Your task to perform on an android device: Open accessibility settings Image 0: 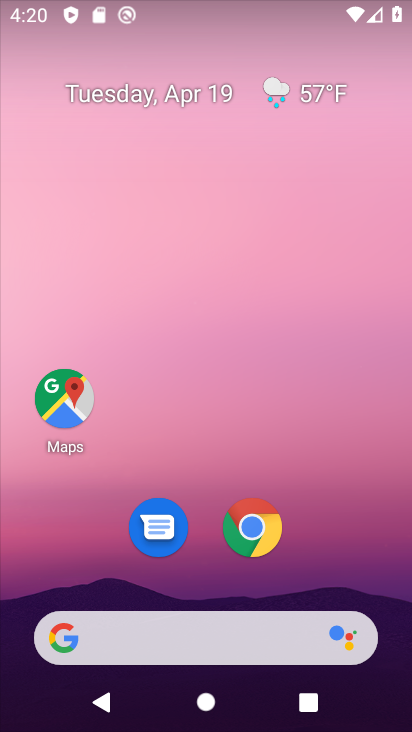
Step 0: drag from (394, 625) to (352, 246)
Your task to perform on an android device: Open accessibility settings Image 1: 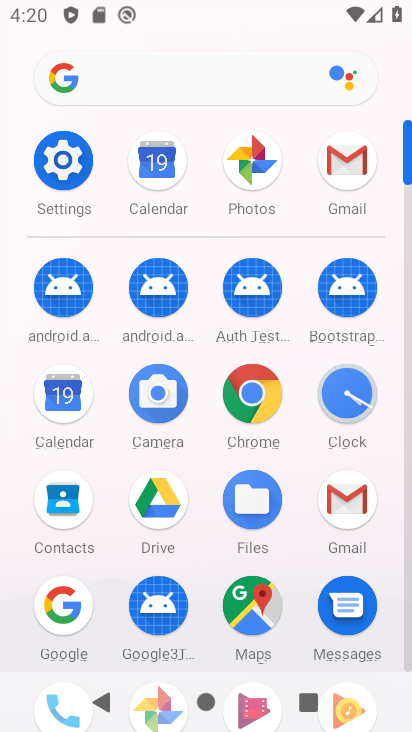
Step 1: click (405, 649)
Your task to perform on an android device: Open accessibility settings Image 2: 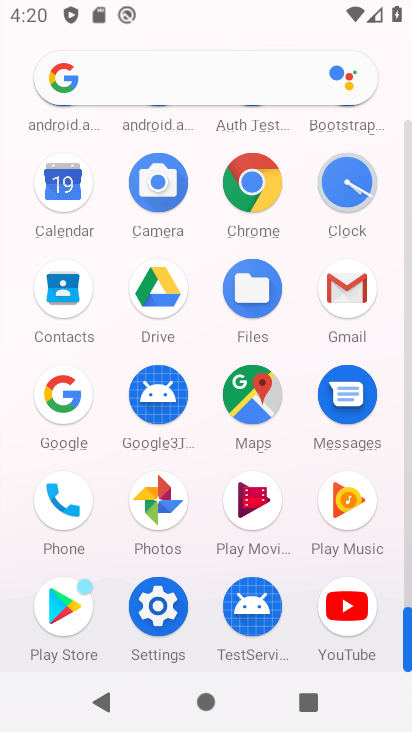
Step 2: click (158, 604)
Your task to perform on an android device: Open accessibility settings Image 3: 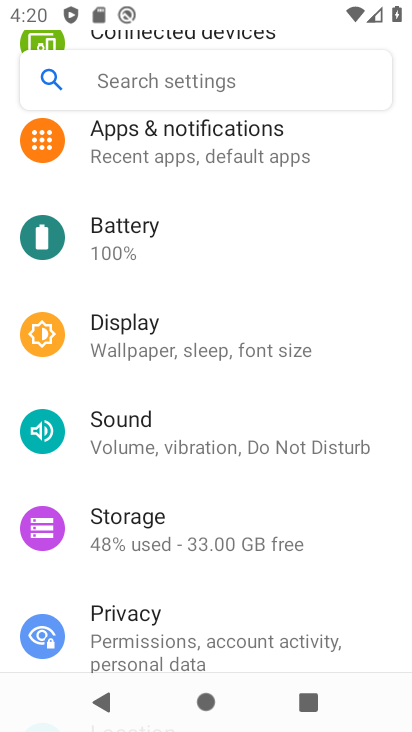
Step 3: drag from (345, 595) to (383, 331)
Your task to perform on an android device: Open accessibility settings Image 4: 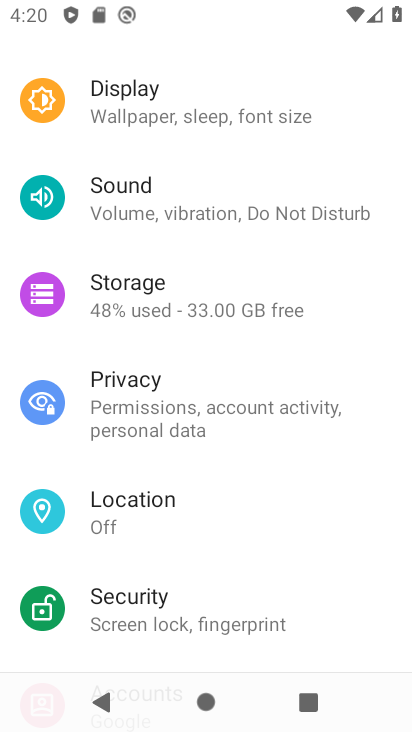
Step 4: drag from (306, 580) to (366, 297)
Your task to perform on an android device: Open accessibility settings Image 5: 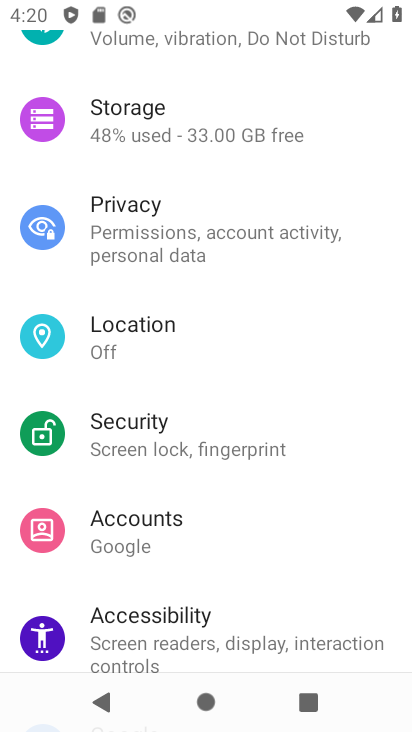
Step 5: drag from (308, 569) to (408, 152)
Your task to perform on an android device: Open accessibility settings Image 6: 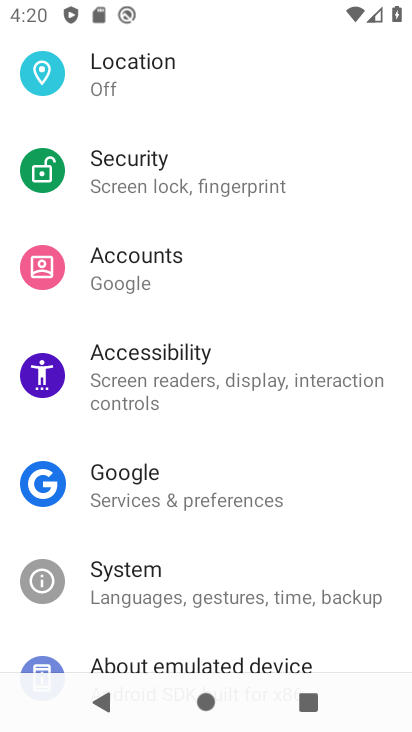
Step 6: click (124, 377)
Your task to perform on an android device: Open accessibility settings Image 7: 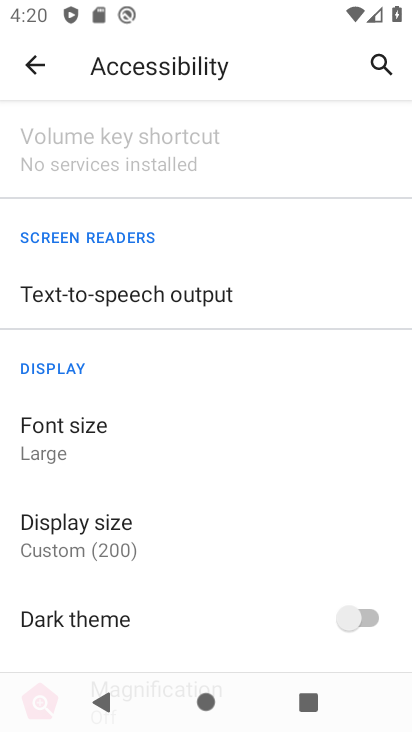
Step 7: task complete